Your task to perform on an android device: toggle sleep mode Image 0: 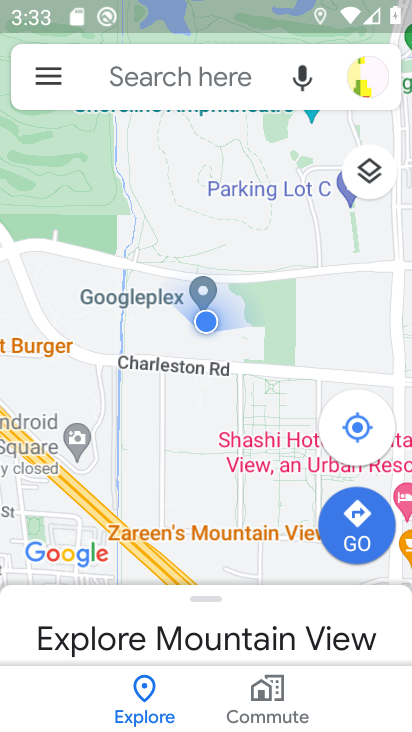
Step 0: press home button
Your task to perform on an android device: toggle sleep mode Image 1: 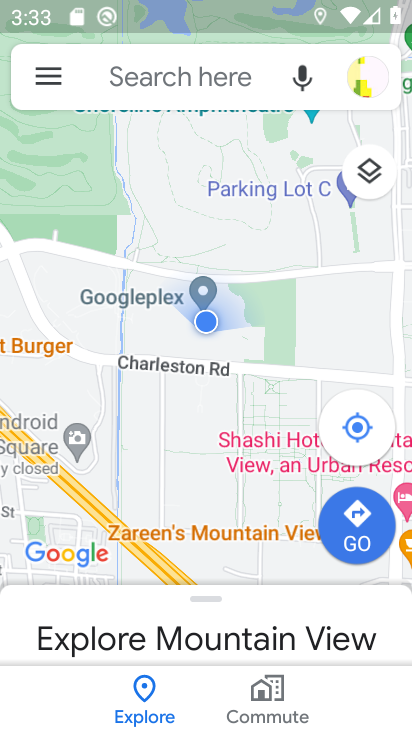
Step 1: press home button
Your task to perform on an android device: toggle sleep mode Image 2: 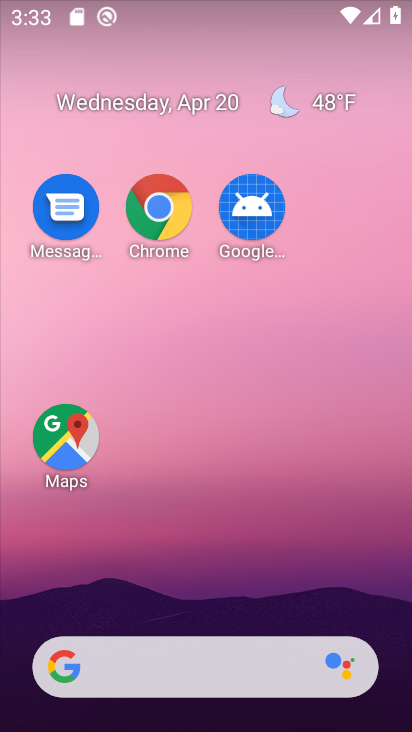
Step 2: drag from (330, 559) to (318, 312)
Your task to perform on an android device: toggle sleep mode Image 3: 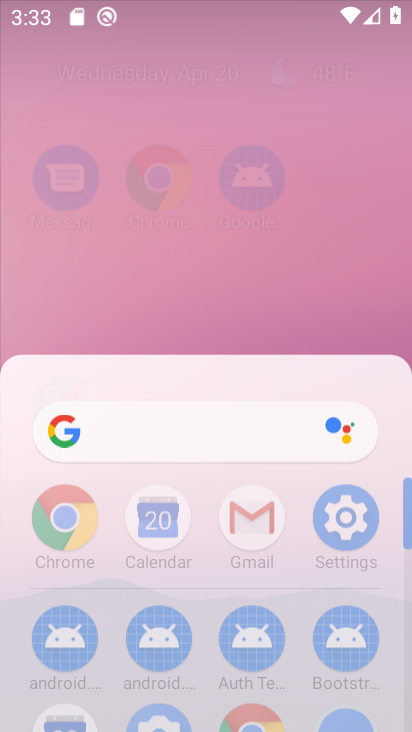
Step 3: drag from (287, 469) to (366, 38)
Your task to perform on an android device: toggle sleep mode Image 4: 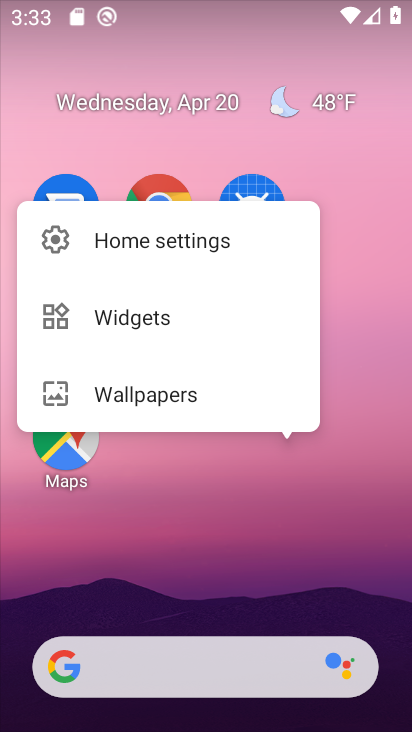
Step 4: click (307, 565)
Your task to perform on an android device: toggle sleep mode Image 5: 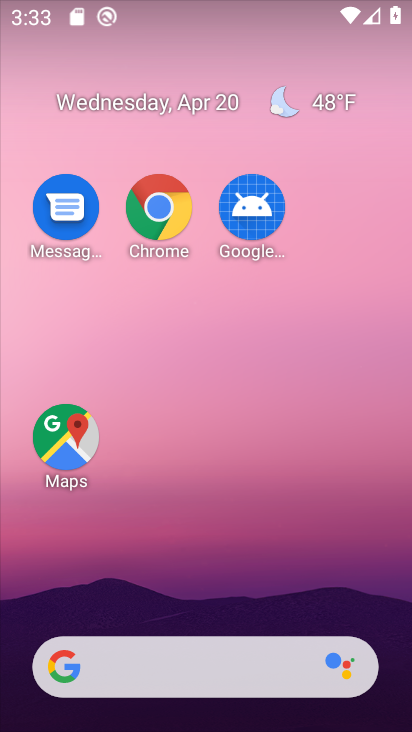
Step 5: drag from (302, 557) to (403, 405)
Your task to perform on an android device: toggle sleep mode Image 6: 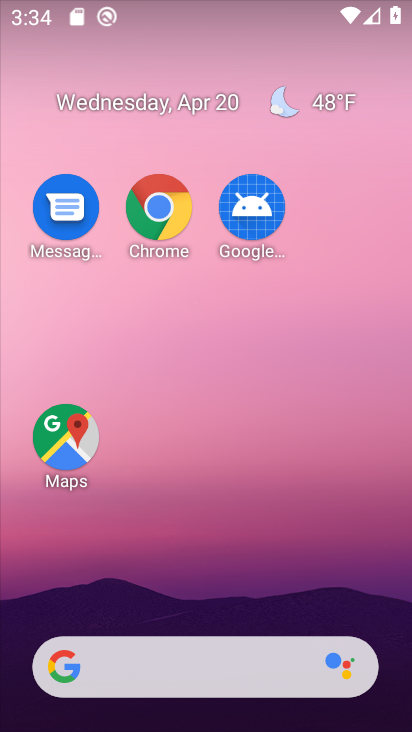
Step 6: drag from (321, 497) to (353, 437)
Your task to perform on an android device: toggle sleep mode Image 7: 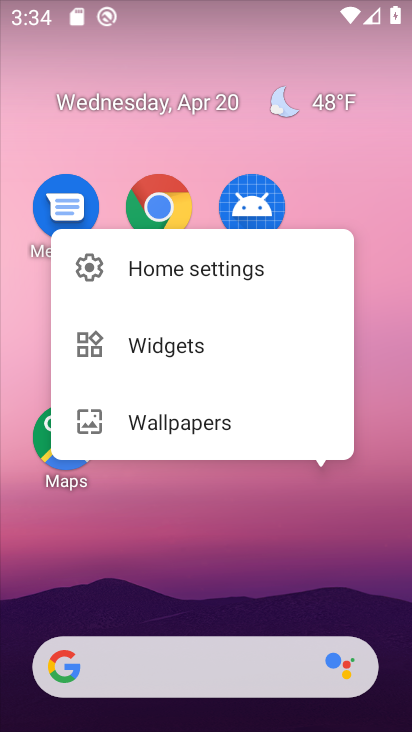
Step 7: click (276, 535)
Your task to perform on an android device: toggle sleep mode Image 8: 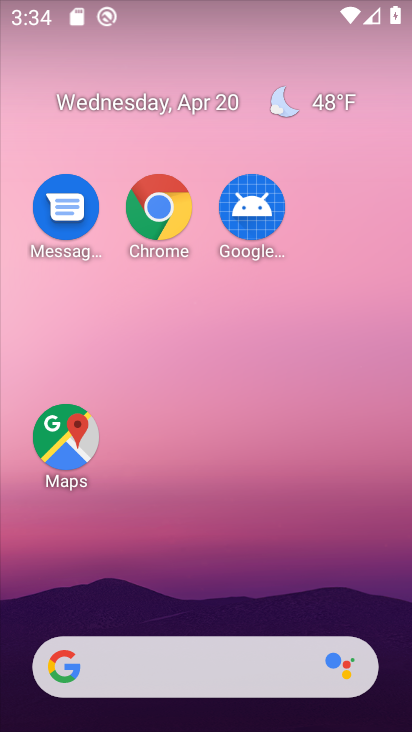
Step 8: drag from (297, 603) to (267, 184)
Your task to perform on an android device: toggle sleep mode Image 9: 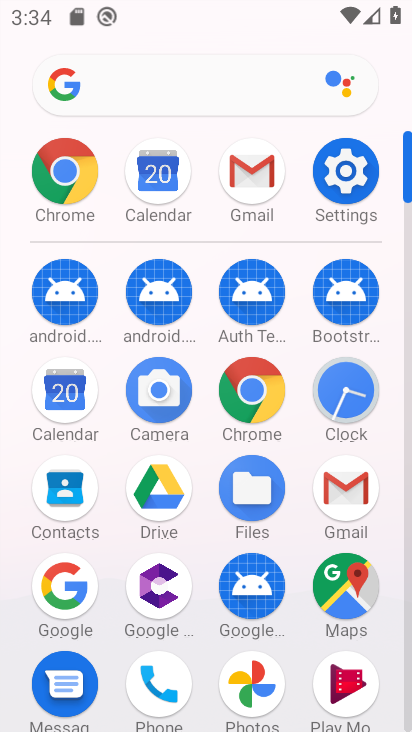
Step 9: click (338, 187)
Your task to perform on an android device: toggle sleep mode Image 10: 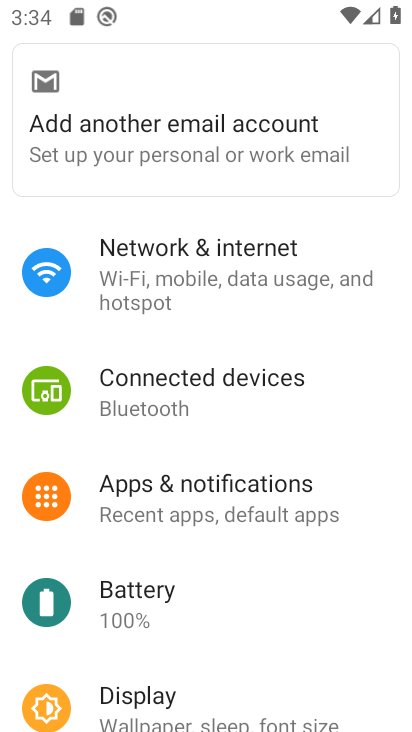
Step 10: drag from (197, 667) to (239, 297)
Your task to perform on an android device: toggle sleep mode Image 11: 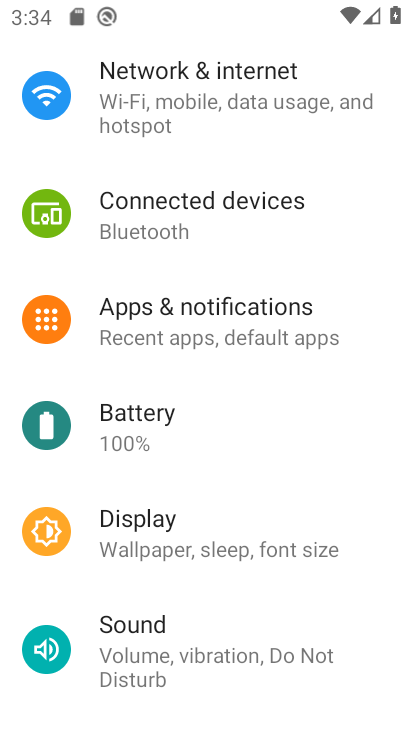
Step 11: click (225, 561)
Your task to perform on an android device: toggle sleep mode Image 12: 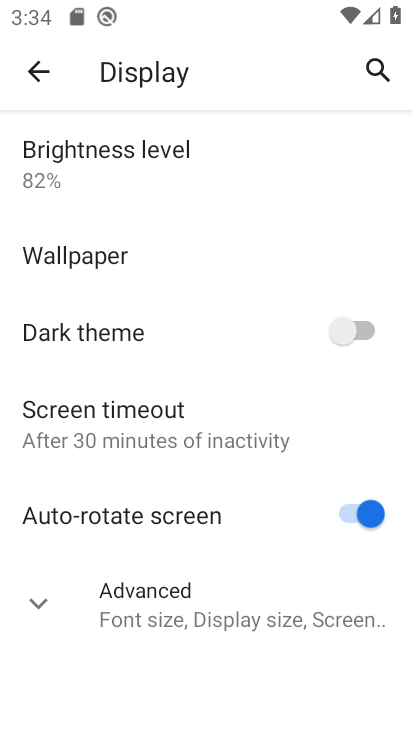
Step 12: click (193, 623)
Your task to perform on an android device: toggle sleep mode Image 13: 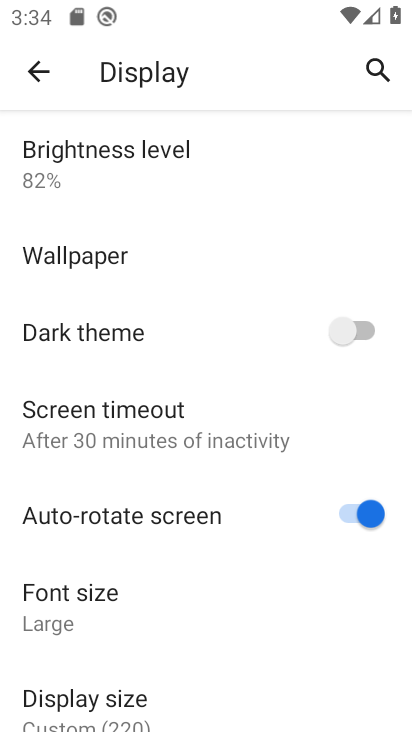
Step 13: task complete